Your task to perform on an android device: toggle show notifications on the lock screen Image 0: 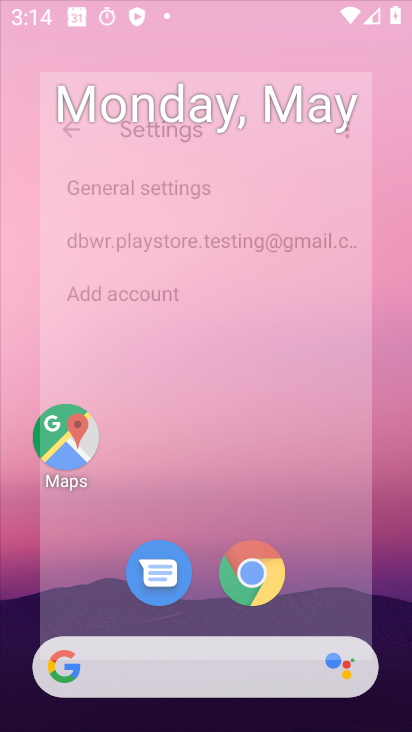
Step 0: drag from (244, 591) to (162, 97)
Your task to perform on an android device: toggle show notifications on the lock screen Image 1: 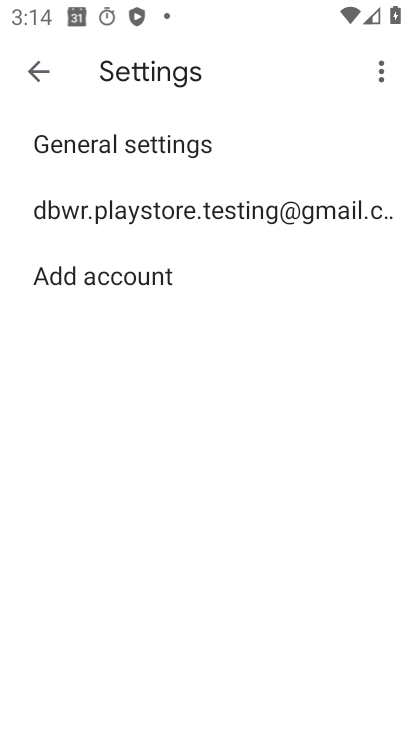
Step 1: click (34, 71)
Your task to perform on an android device: toggle show notifications on the lock screen Image 2: 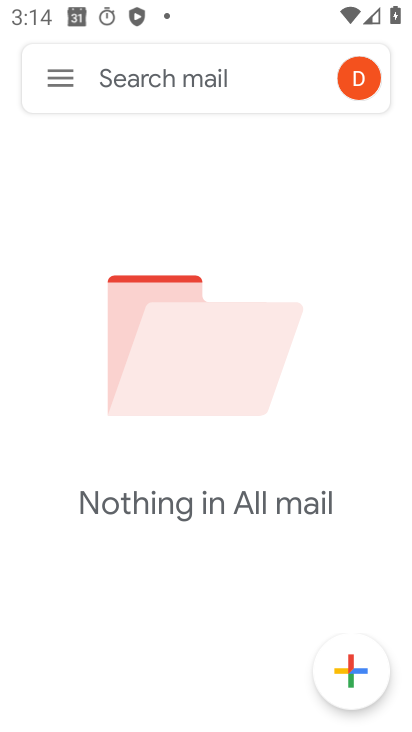
Step 2: press home button
Your task to perform on an android device: toggle show notifications on the lock screen Image 3: 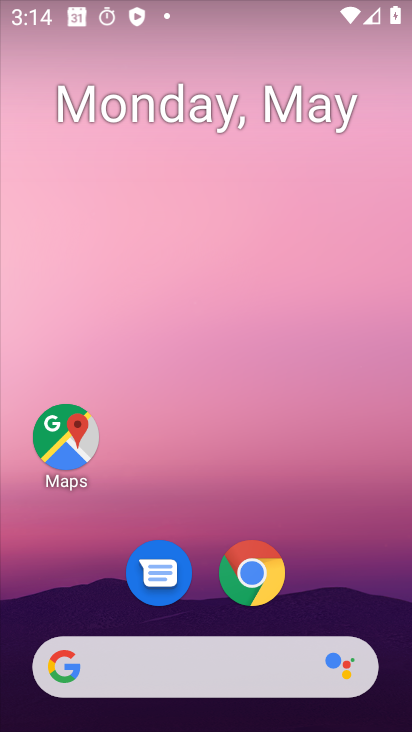
Step 3: drag from (296, 693) to (135, 109)
Your task to perform on an android device: toggle show notifications on the lock screen Image 4: 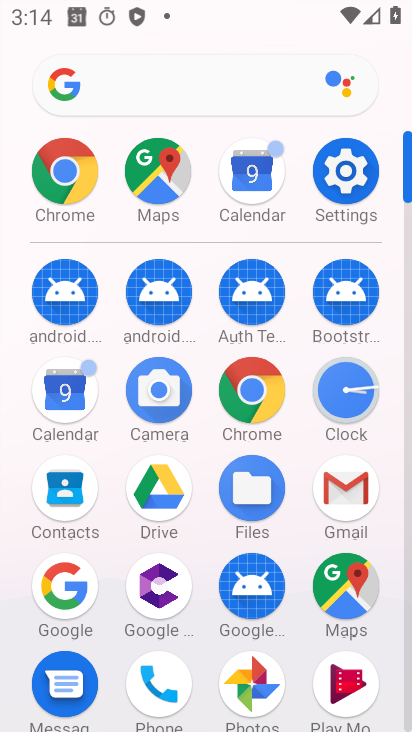
Step 4: click (345, 197)
Your task to perform on an android device: toggle show notifications on the lock screen Image 5: 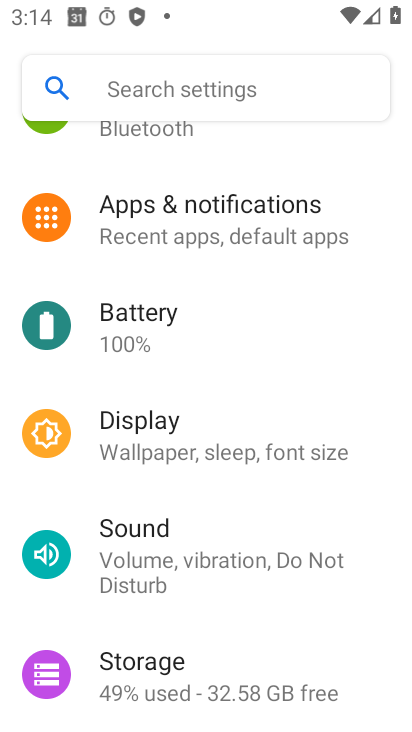
Step 5: click (213, 234)
Your task to perform on an android device: toggle show notifications on the lock screen Image 6: 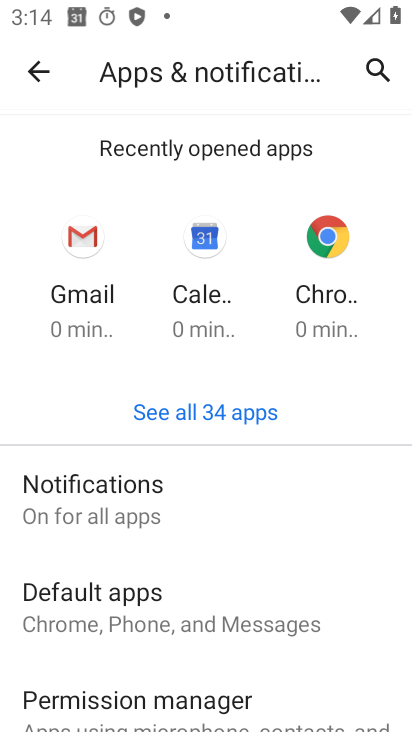
Step 6: click (94, 501)
Your task to perform on an android device: toggle show notifications on the lock screen Image 7: 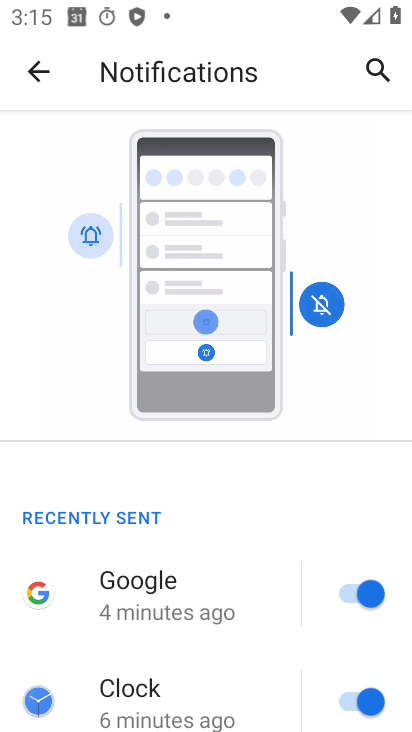
Step 7: drag from (191, 627) to (202, 413)
Your task to perform on an android device: toggle show notifications on the lock screen Image 8: 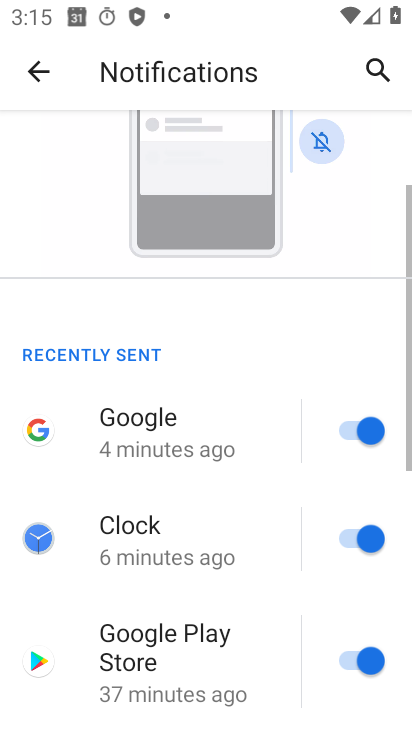
Step 8: drag from (258, 589) to (253, 284)
Your task to perform on an android device: toggle show notifications on the lock screen Image 9: 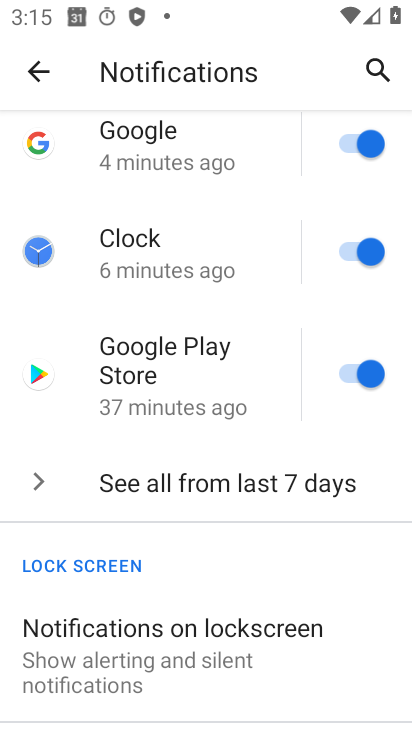
Step 9: drag from (235, 557) to (153, 125)
Your task to perform on an android device: toggle show notifications on the lock screen Image 10: 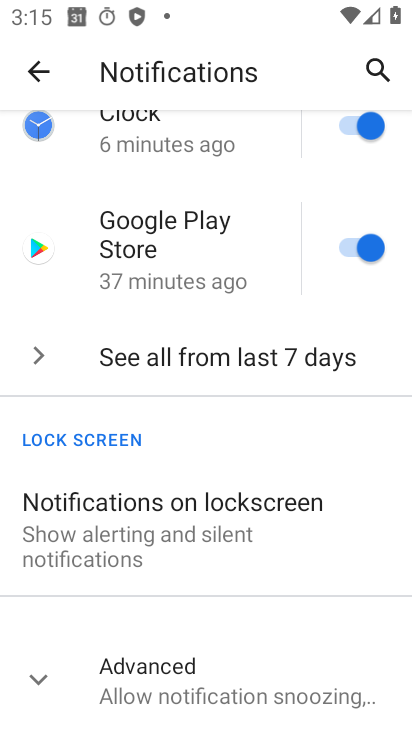
Step 10: click (149, 521)
Your task to perform on an android device: toggle show notifications on the lock screen Image 11: 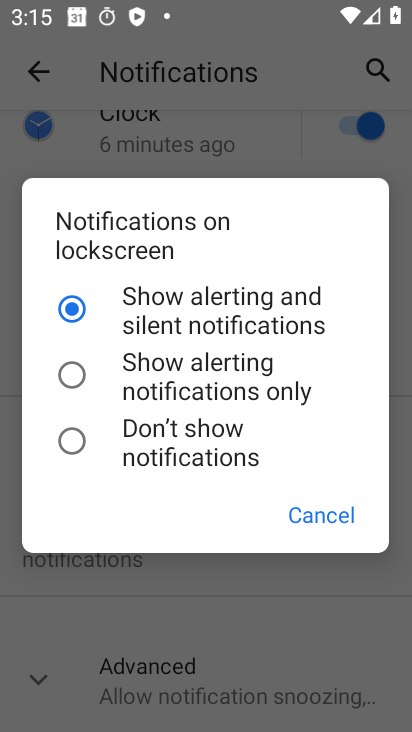
Step 11: click (309, 506)
Your task to perform on an android device: toggle show notifications on the lock screen Image 12: 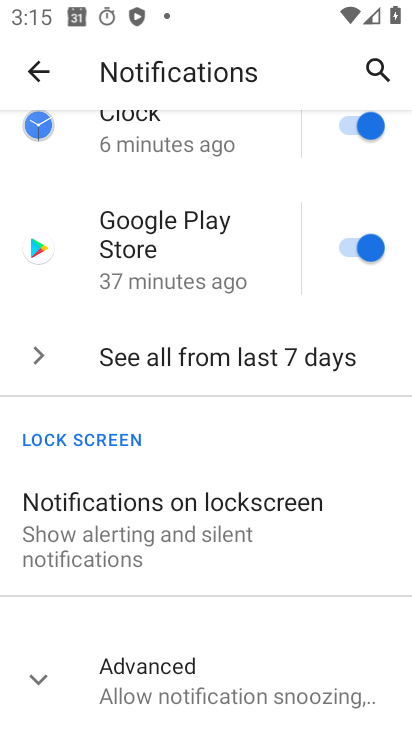
Step 12: click (146, 486)
Your task to perform on an android device: toggle show notifications on the lock screen Image 13: 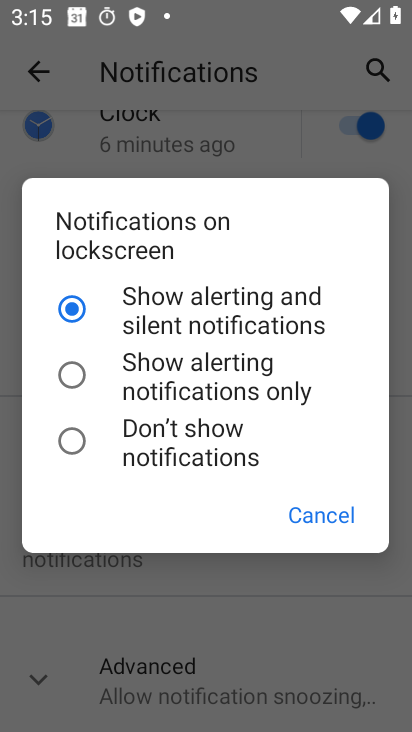
Step 13: click (330, 512)
Your task to perform on an android device: toggle show notifications on the lock screen Image 14: 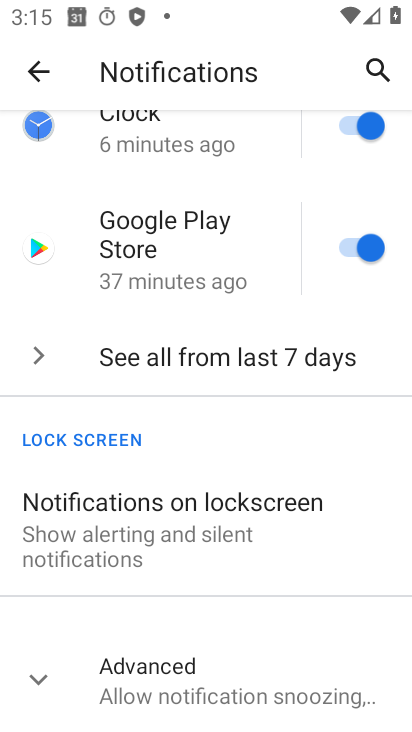
Step 14: task complete